Your task to perform on an android device: uninstall "Indeed Job Search" Image 0: 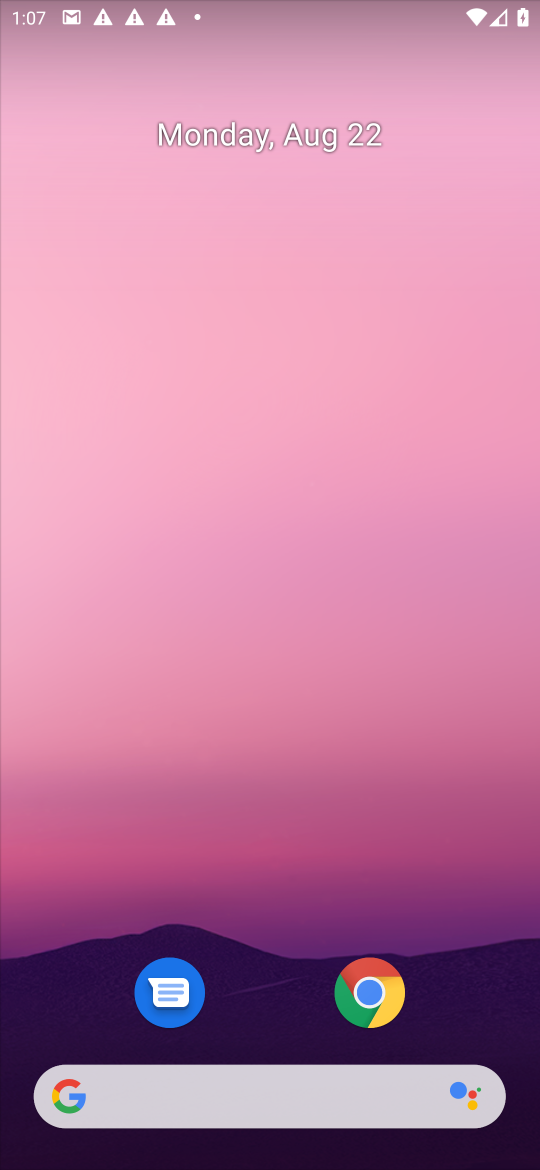
Step 0: drag from (279, 908) to (342, 26)
Your task to perform on an android device: uninstall "Indeed Job Search" Image 1: 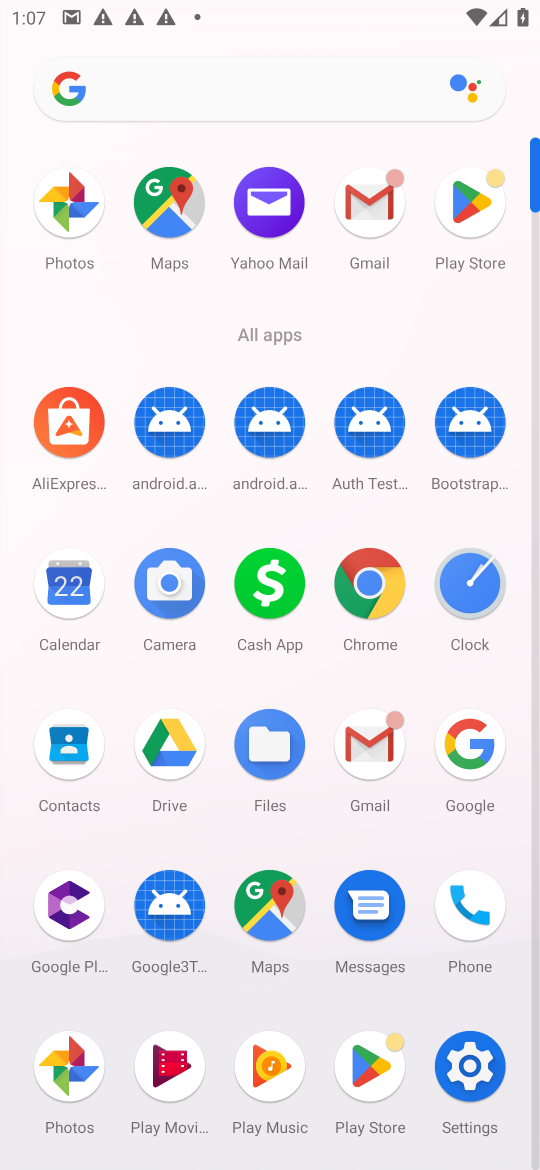
Step 1: click (456, 194)
Your task to perform on an android device: uninstall "Indeed Job Search" Image 2: 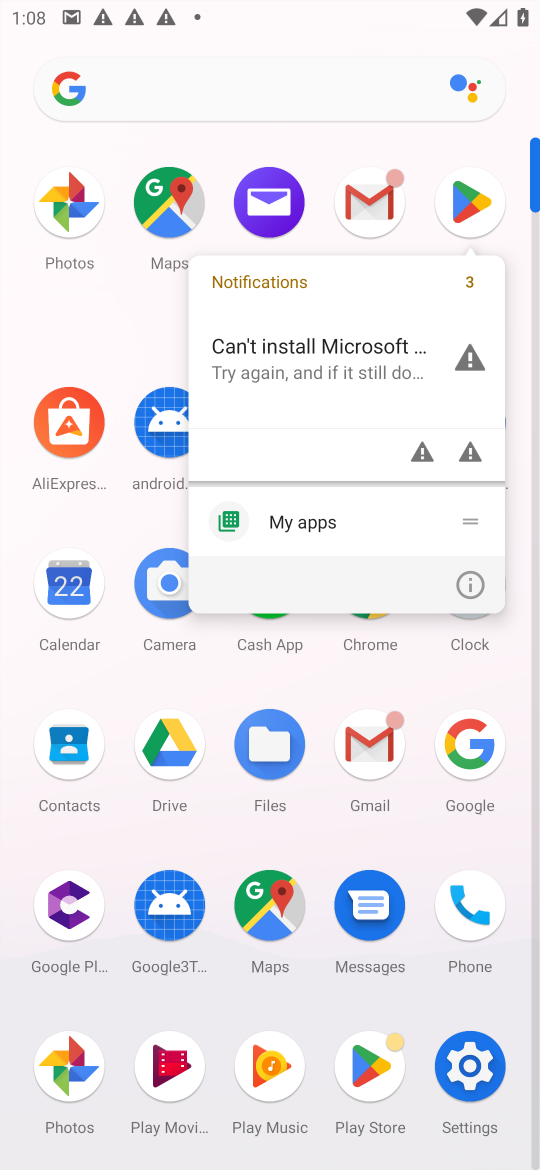
Step 2: click (456, 189)
Your task to perform on an android device: uninstall "Indeed Job Search" Image 3: 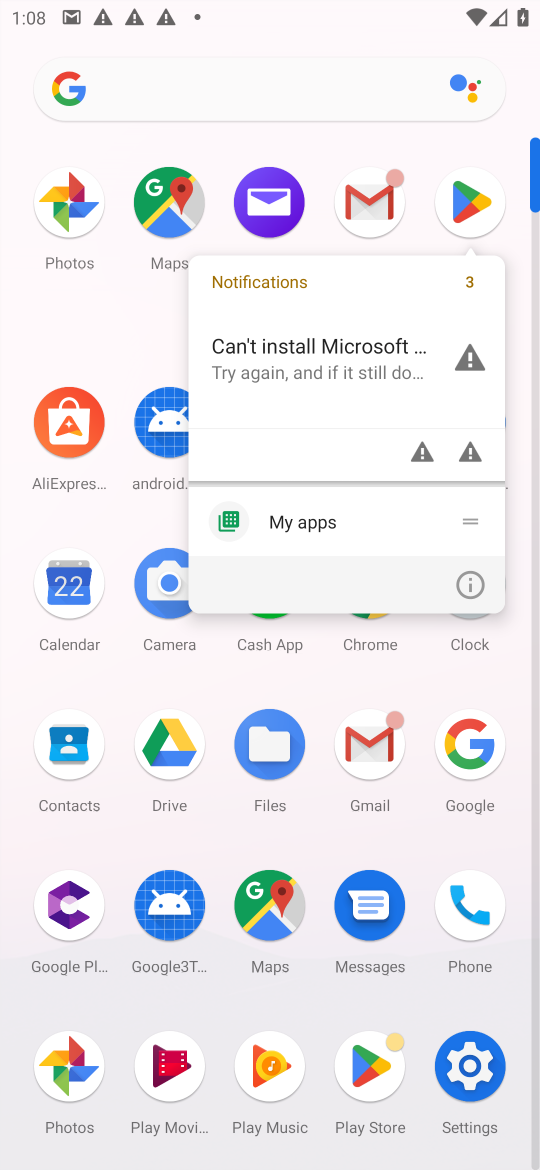
Step 3: click (461, 213)
Your task to perform on an android device: uninstall "Indeed Job Search" Image 4: 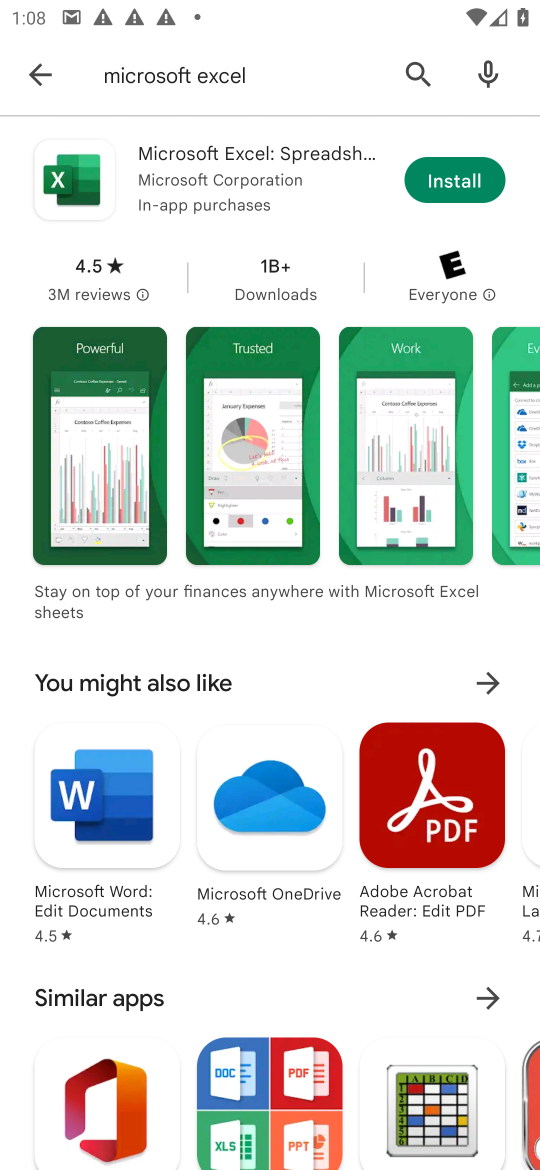
Step 4: click (412, 62)
Your task to perform on an android device: uninstall "Indeed Job Search" Image 5: 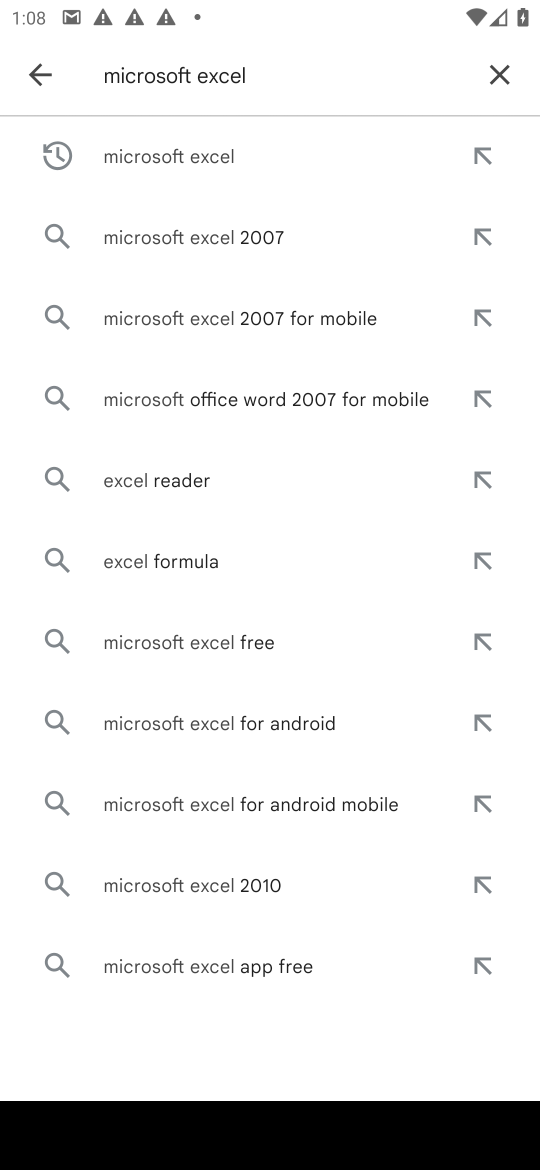
Step 5: click (495, 76)
Your task to perform on an android device: uninstall "Indeed Job Search" Image 6: 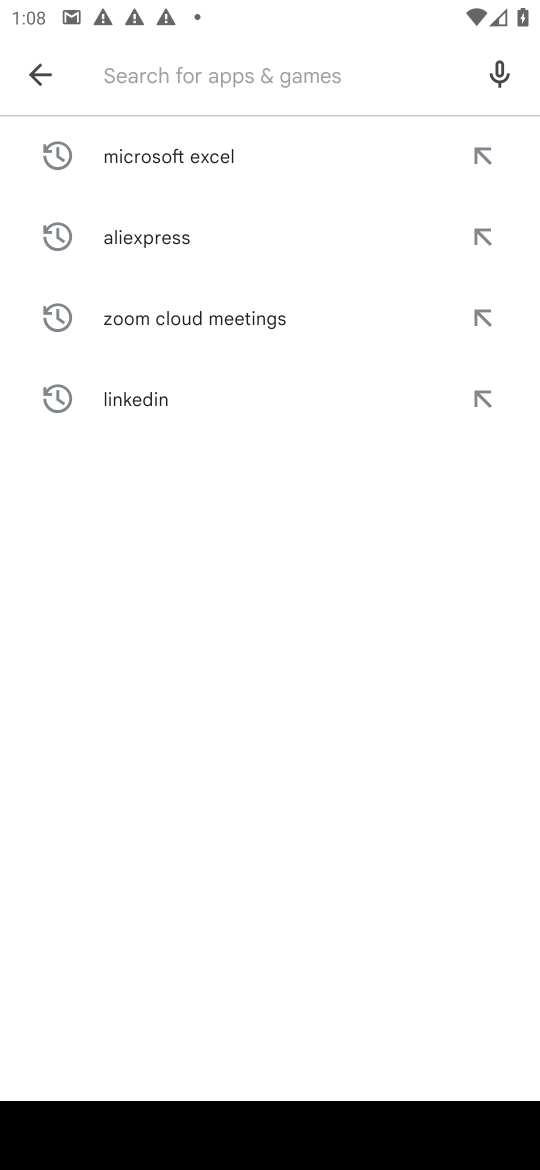
Step 6: type "Indeed Job Search"
Your task to perform on an android device: uninstall "Indeed Job Search" Image 7: 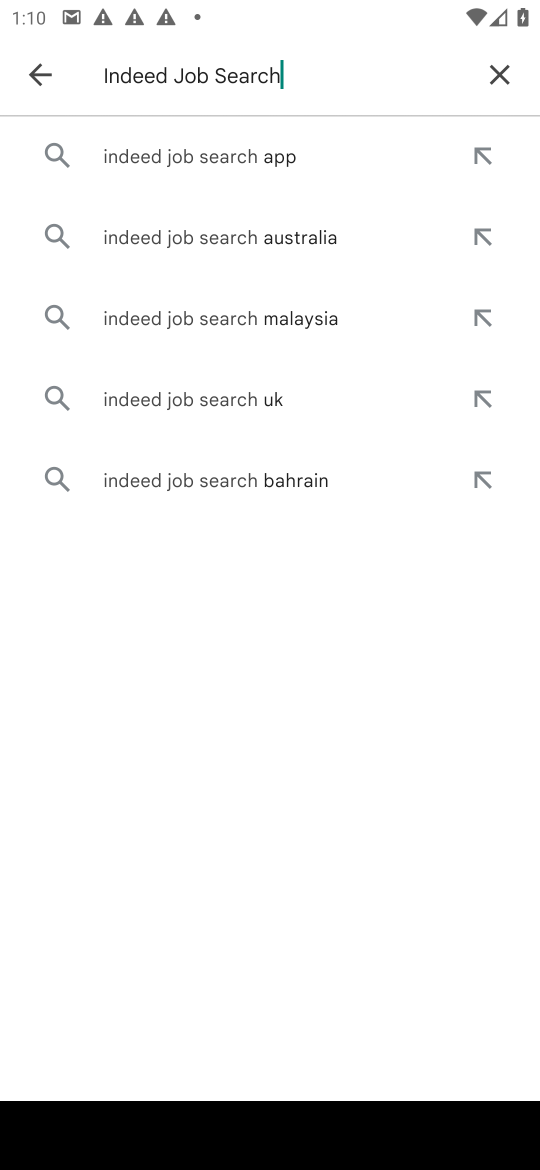
Step 7: click (209, 158)
Your task to perform on an android device: uninstall "Indeed Job Search" Image 8: 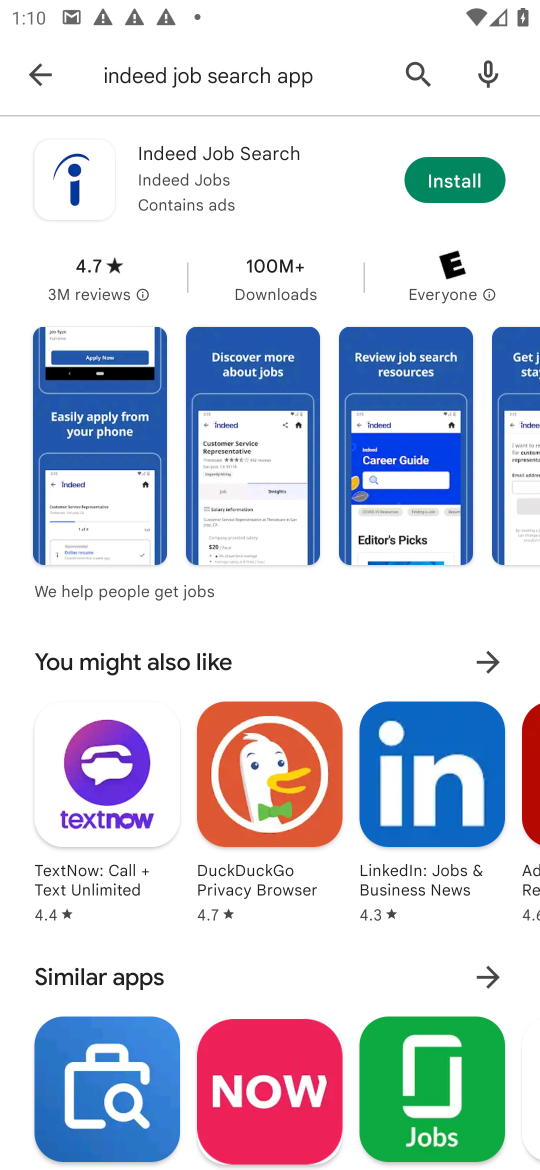
Step 8: click (445, 176)
Your task to perform on an android device: uninstall "Indeed Job Search" Image 9: 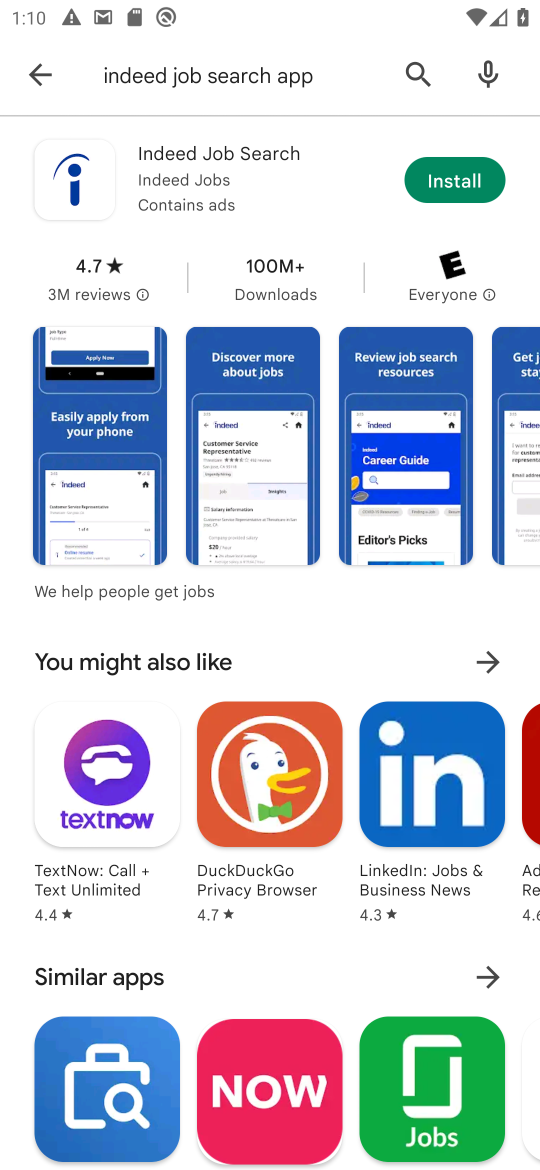
Step 9: task complete